Your task to perform on an android device: change notification settings in the gmail app Image 0: 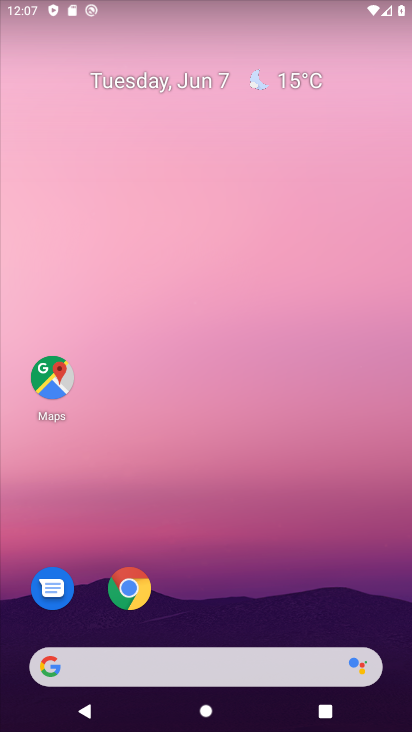
Step 0: drag from (223, 602) to (300, 55)
Your task to perform on an android device: change notification settings in the gmail app Image 1: 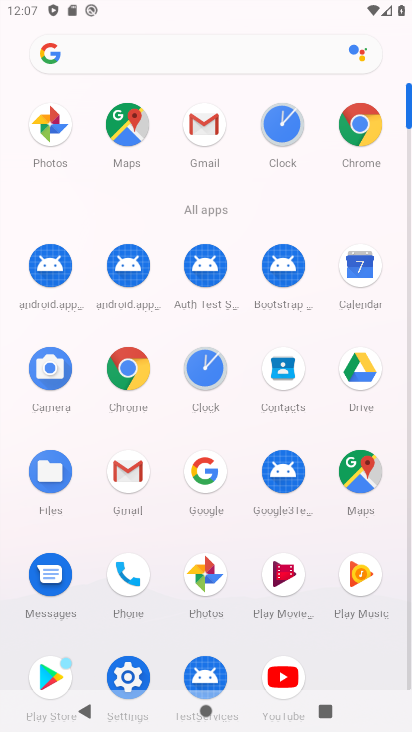
Step 1: click (209, 116)
Your task to perform on an android device: change notification settings in the gmail app Image 2: 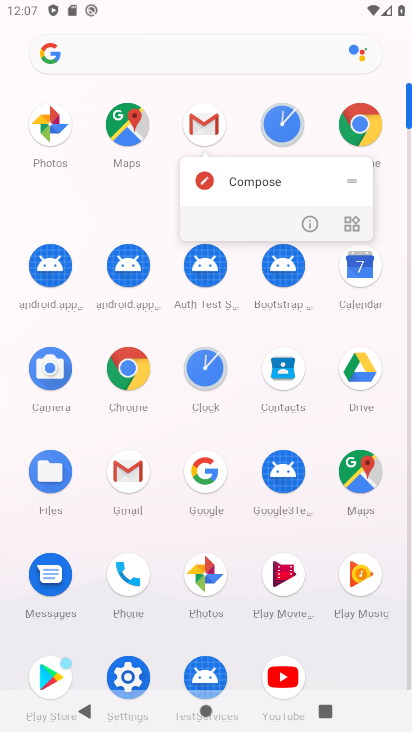
Step 2: click (308, 226)
Your task to perform on an android device: change notification settings in the gmail app Image 3: 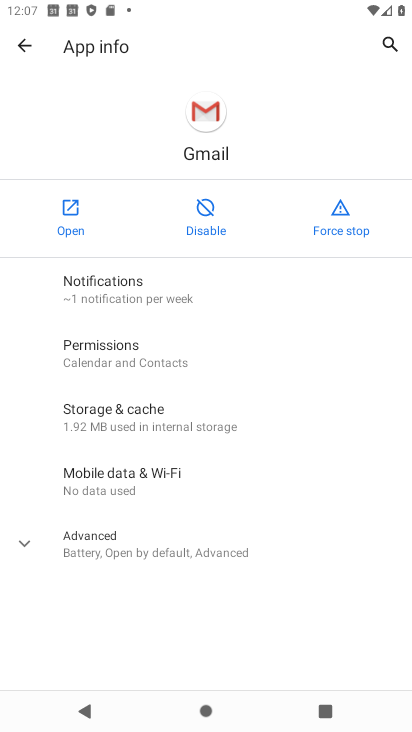
Step 3: click (137, 288)
Your task to perform on an android device: change notification settings in the gmail app Image 4: 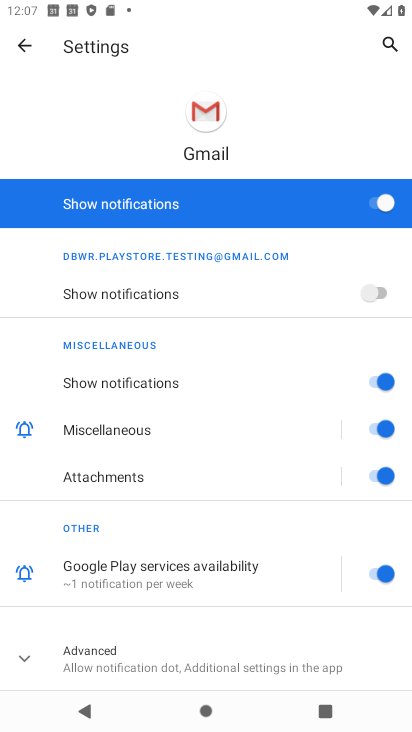
Step 4: click (378, 286)
Your task to perform on an android device: change notification settings in the gmail app Image 5: 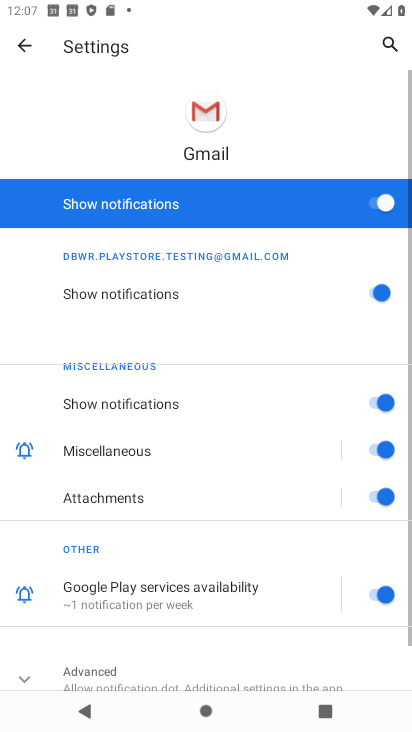
Step 5: task complete